Your task to perform on an android device: Go to Maps Image 0: 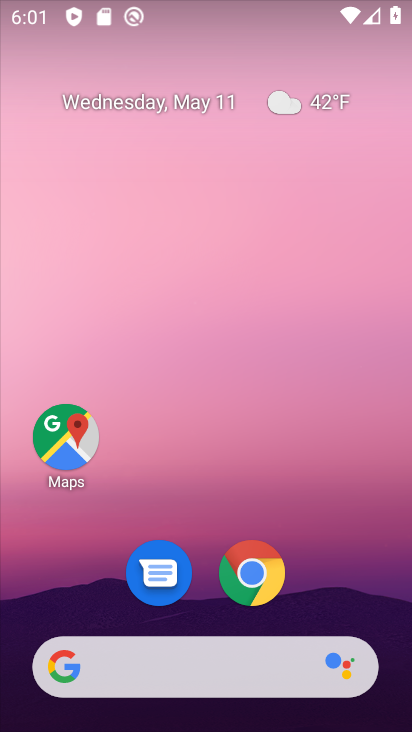
Step 0: click (71, 445)
Your task to perform on an android device: Go to Maps Image 1: 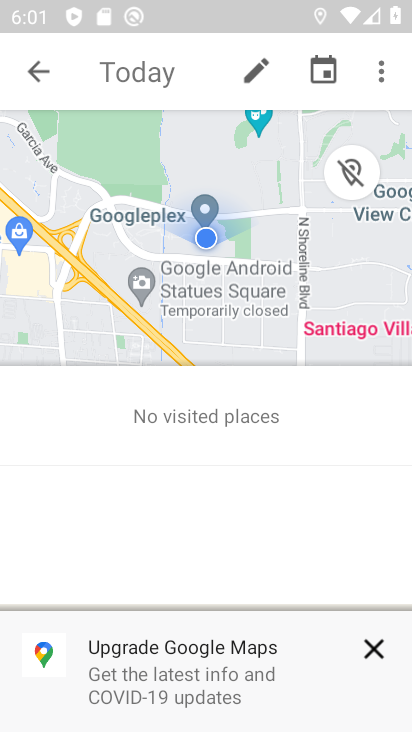
Step 1: task complete